Your task to perform on an android device: Open the calendar app, open the side menu, and click the "Day" option Image 0: 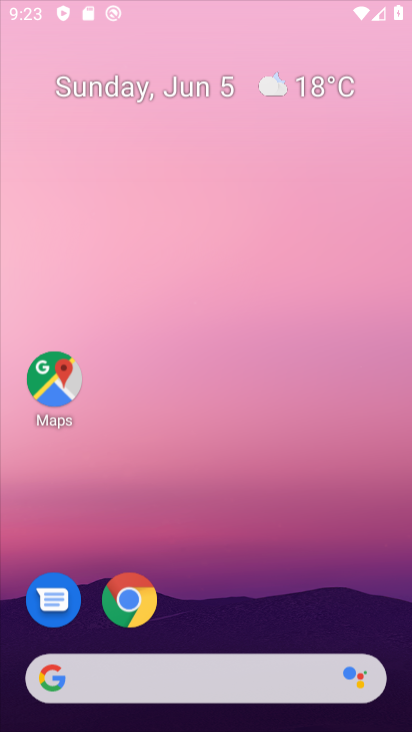
Step 0: click (301, 81)
Your task to perform on an android device: Open the calendar app, open the side menu, and click the "Day" option Image 1: 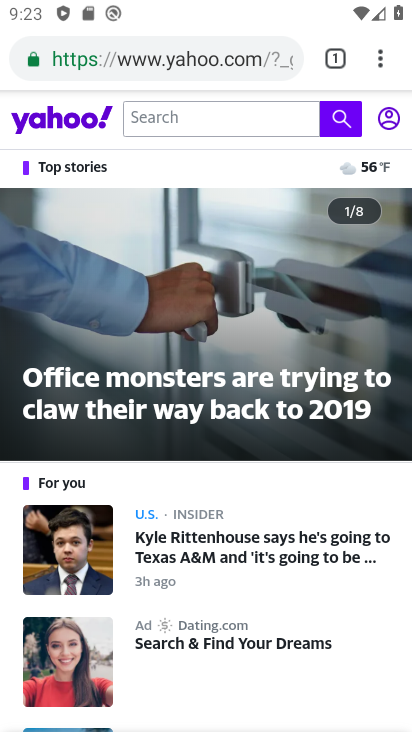
Step 1: press home button
Your task to perform on an android device: Open the calendar app, open the side menu, and click the "Day" option Image 2: 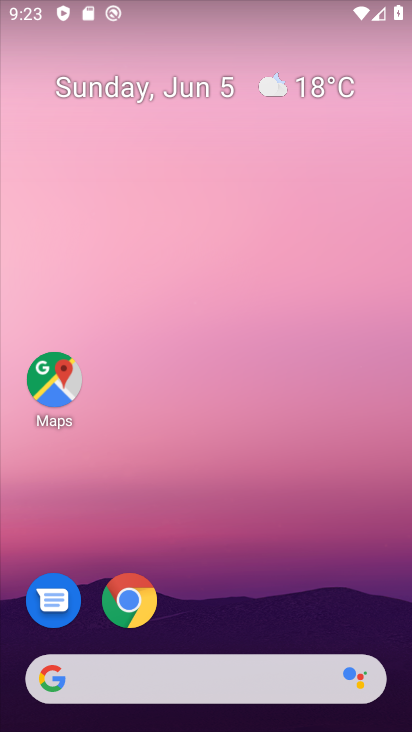
Step 2: drag from (263, 548) to (314, 104)
Your task to perform on an android device: Open the calendar app, open the side menu, and click the "Day" option Image 3: 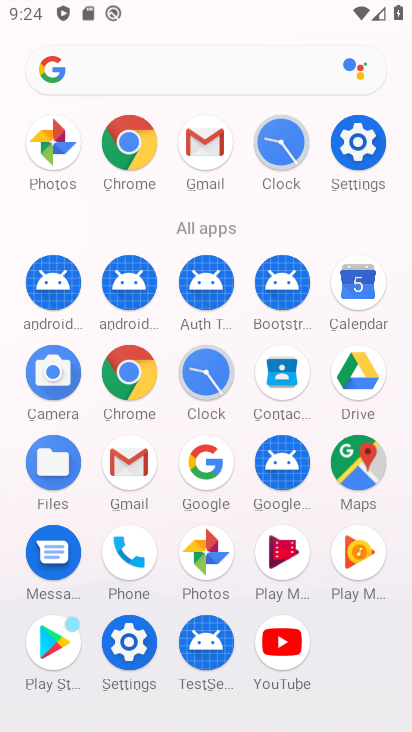
Step 3: click (364, 284)
Your task to perform on an android device: Open the calendar app, open the side menu, and click the "Day" option Image 4: 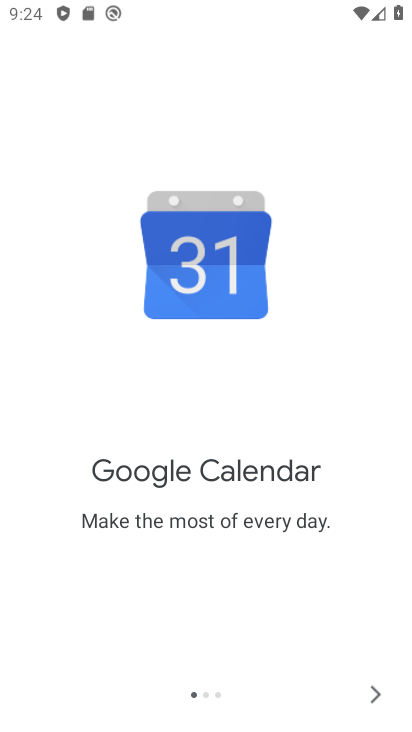
Step 4: click (369, 700)
Your task to perform on an android device: Open the calendar app, open the side menu, and click the "Day" option Image 5: 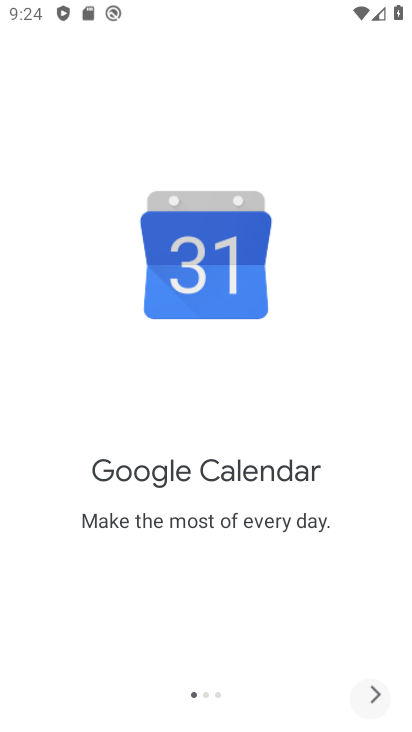
Step 5: click (370, 701)
Your task to perform on an android device: Open the calendar app, open the side menu, and click the "Day" option Image 6: 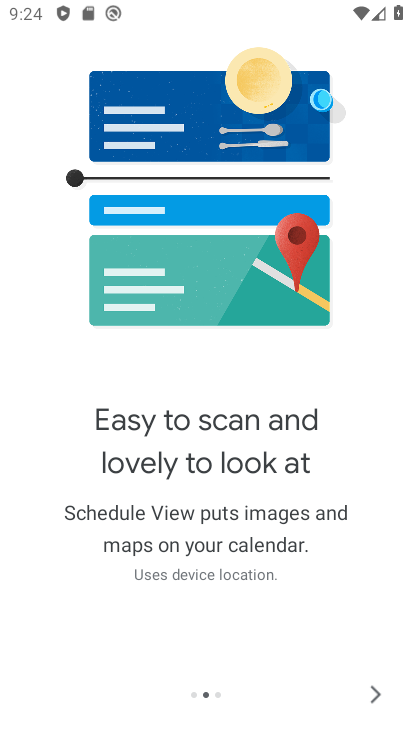
Step 6: click (376, 692)
Your task to perform on an android device: Open the calendar app, open the side menu, and click the "Day" option Image 7: 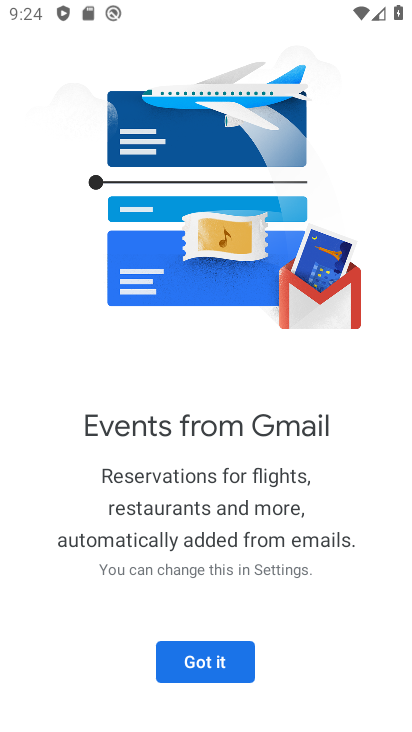
Step 7: click (203, 658)
Your task to perform on an android device: Open the calendar app, open the side menu, and click the "Day" option Image 8: 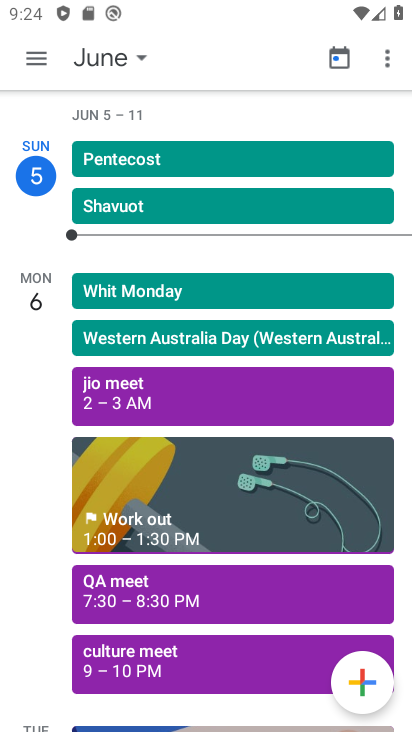
Step 8: click (44, 59)
Your task to perform on an android device: Open the calendar app, open the side menu, and click the "Day" option Image 9: 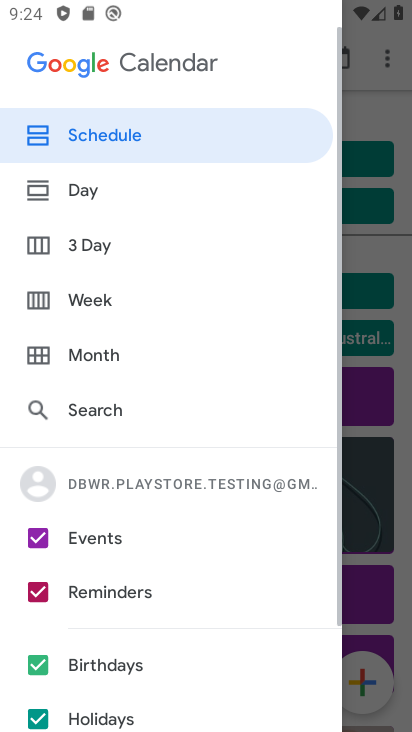
Step 9: click (87, 181)
Your task to perform on an android device: Open the calendar app, open the side menu, and click the "Day" option Image 10: 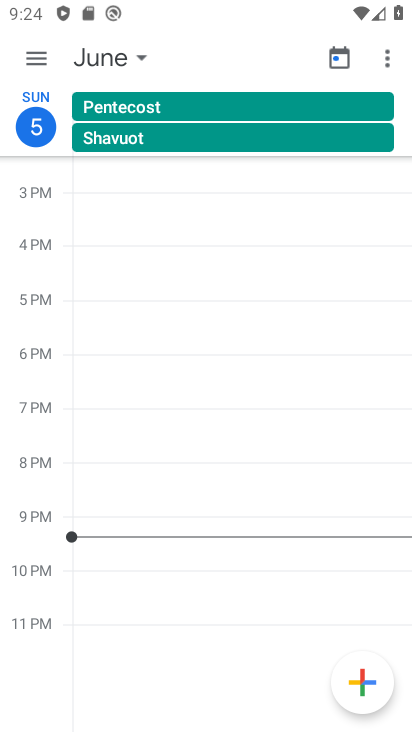
Step 10: task complete